Your task to perform on an android device: Open the stopwatch Image 0: 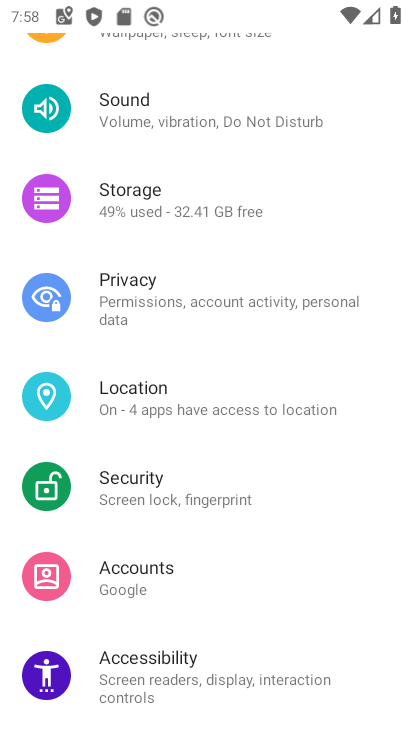
Step 0: press home button
Your task to perform on an android device: Open the stopwatch Image 1: 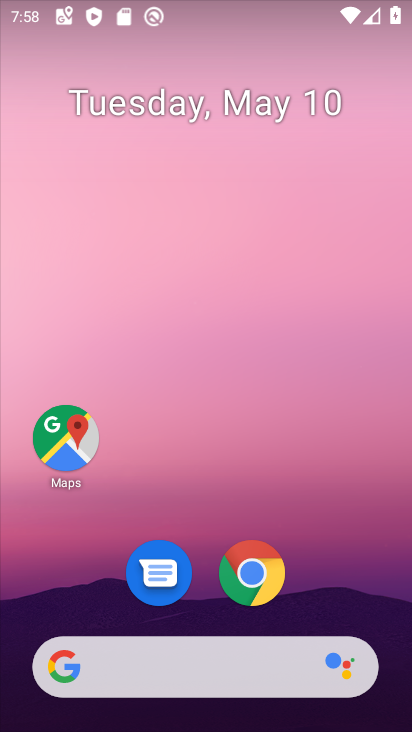
Step 1: drag from (371, 572) to (328, 193)
Your task to perform on an android device: Open the stopwatch Image 2: 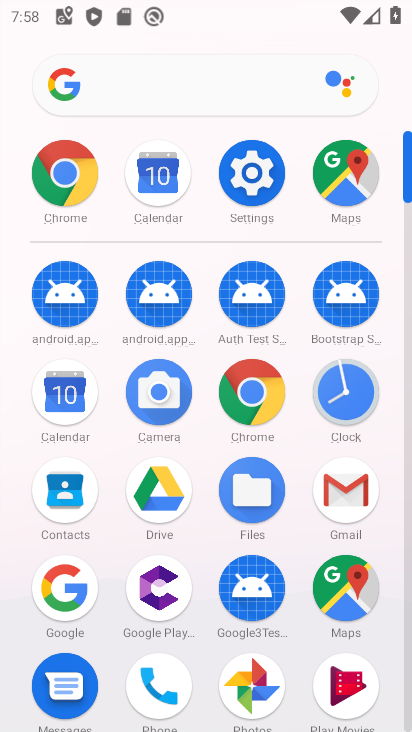
Step 2: click (338, 407)
Your task to perform on an android device: Open the stopwatch Image 3: 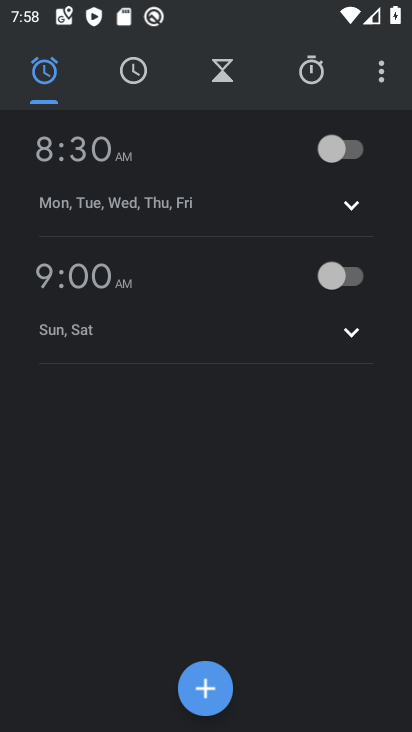
Step 3: click (311, 70)
Your task to perform on an android device: Open the stopwatch Image 4: 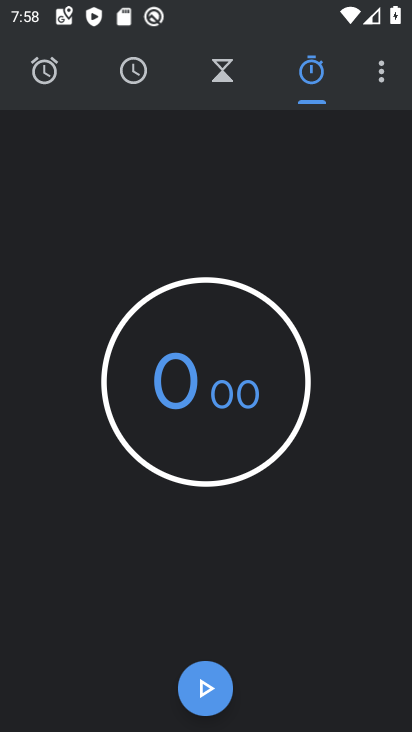
Step 4: click (199, 707)
Your task to perform on an android device: Open the stopwatch Image 5: 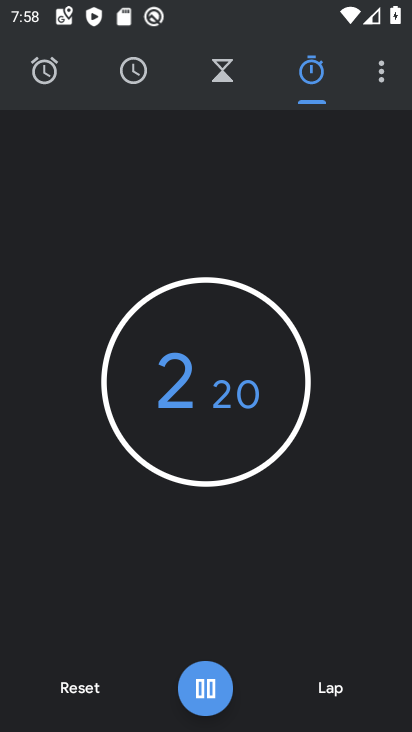
Step 5: click (212, 699)
Your task to perform on an android device: Open the stopwatch Image 6: 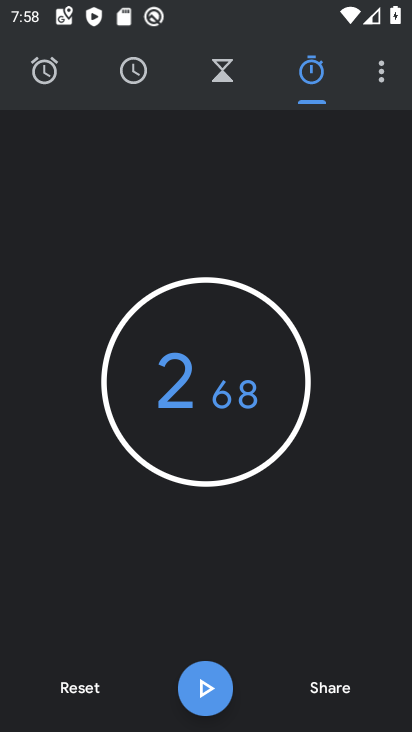
Step 6: task complete